Your task to perform on an android device: open a new tab in the chrome app Image 0: 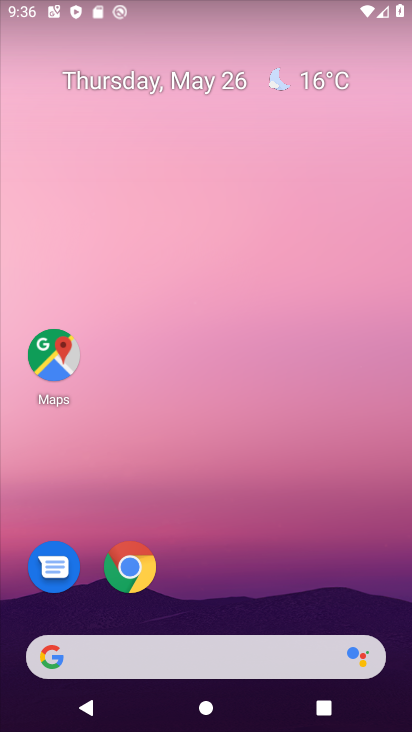
Step 0: click (128, 566)
Your task to perform on an android device: open a new tab in the chrome app Image 1: 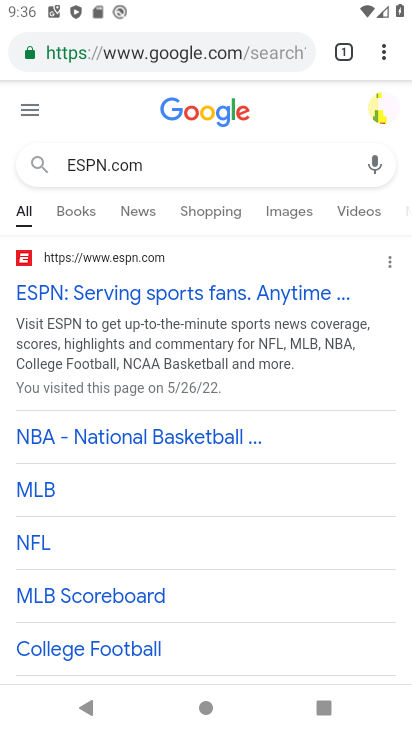
Step 1: click (380, 53)
Your task to perform on an android device: open a new tab in the chrome app Image 2: 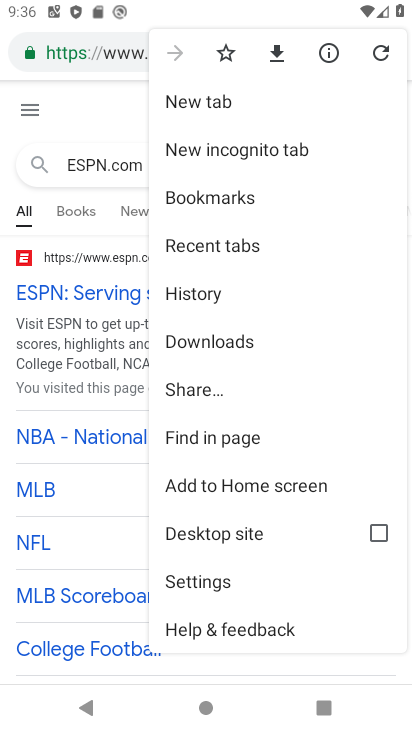
Step 2: click (174, 101)
Your task to perform on an android device: open a new tab in the chrome app Image 3: 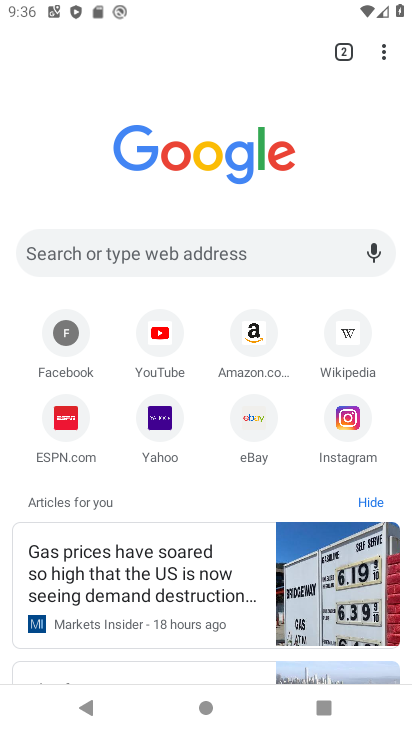
Step 3: task complete